Your task to perform on an android device: What's the weather going to be this weekend? Image 0: 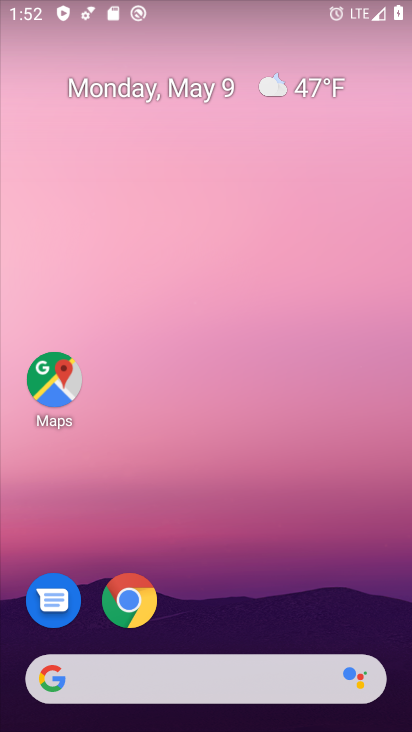
Step 0: click (304, 84)
Your task to perform on an android device: What's the weather going to be this weekend? Image 1: 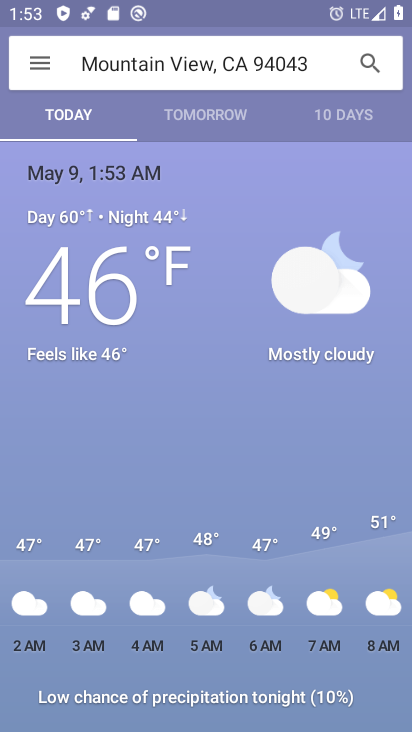
Step 1: click (353, 124)
Your task to perform on an android device: What's the weather going to be this weekend? Image 2: 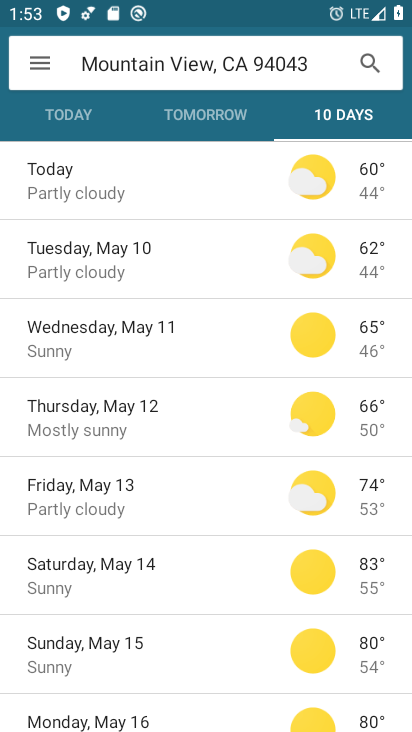
Step 2: task complete